Your task to perform on an android device: stop showing notifications on the lock screen Image 0: 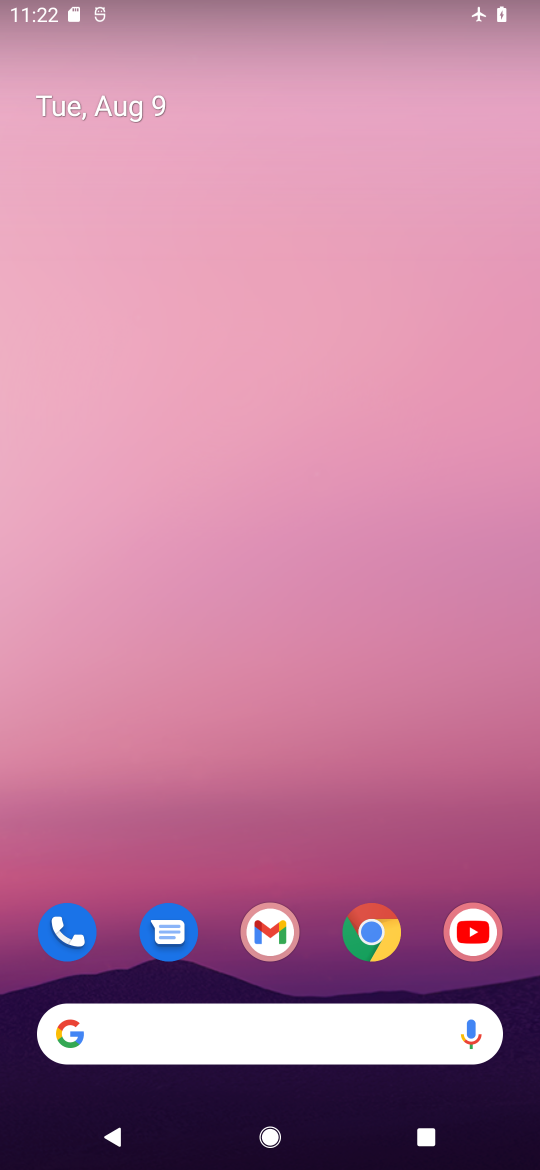
Step 0: drag from (244, 966) to (220, 117)
Your task to perform on an android device: stop showing notifications on the lock screen Image 1: 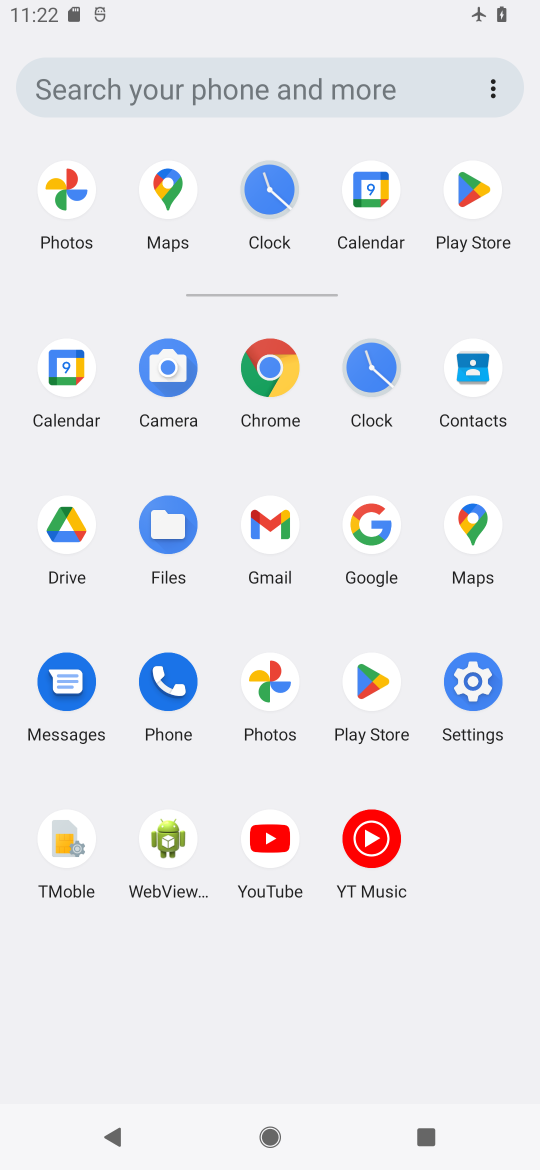
Step 1: click (484, 718)
Your task to perform on an android device: stop showing notifications on the lock screen Image 2: 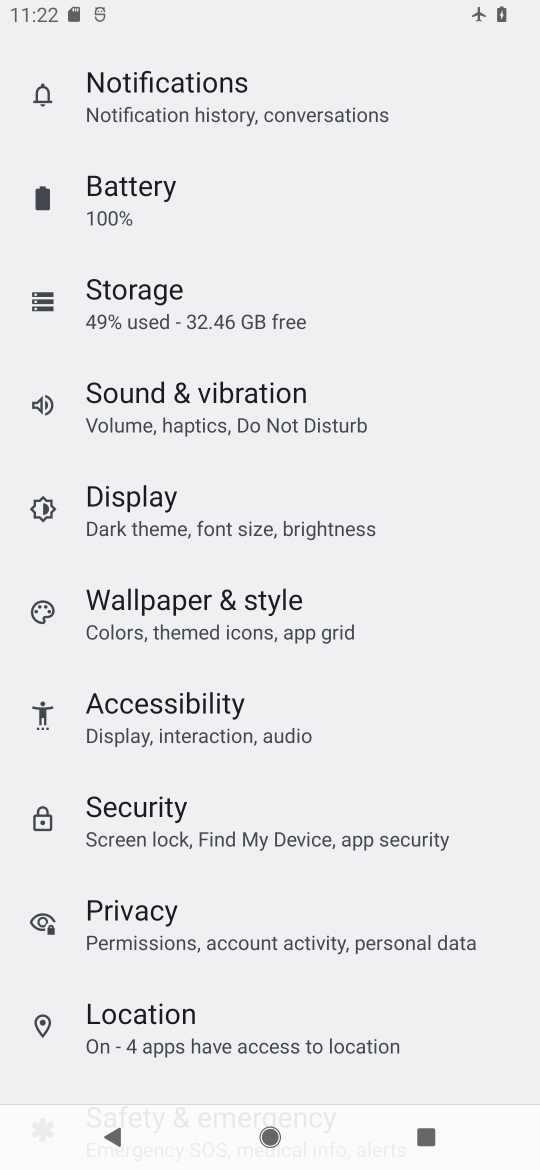
Step 2: click (219, 111)
Your task to perform on an android device: stop showing notifications on the lock screen Image 3: 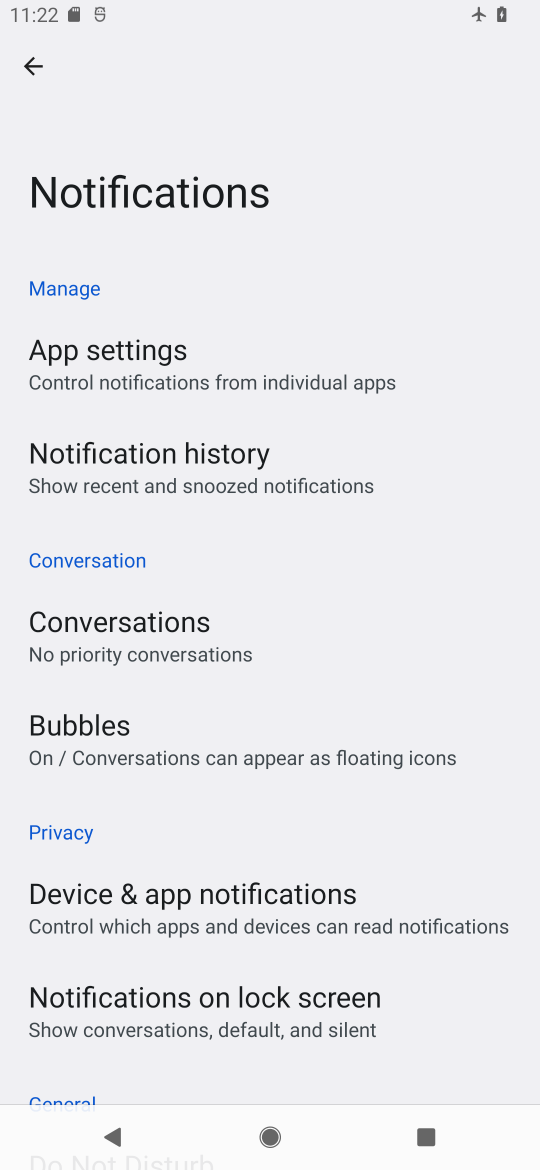
Step 3: click (174, 1020)
Your task to perform on an android device: stop showing notifications on the lock screen Image 4: 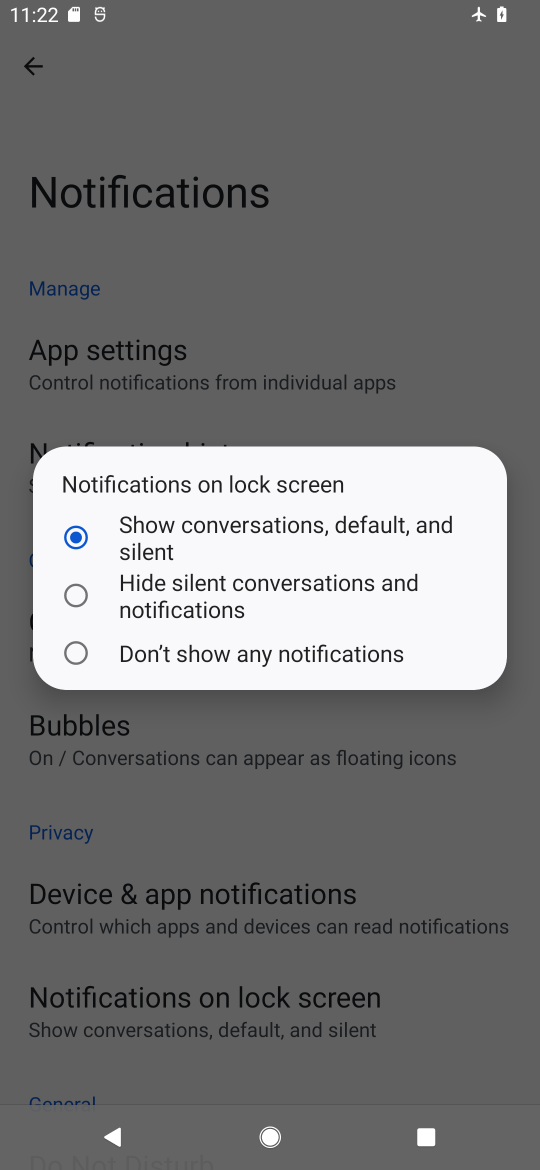
Step 4: click (93, 650)
Your task to perform on an android device: stop showing notifications on the lock screen Image 5: 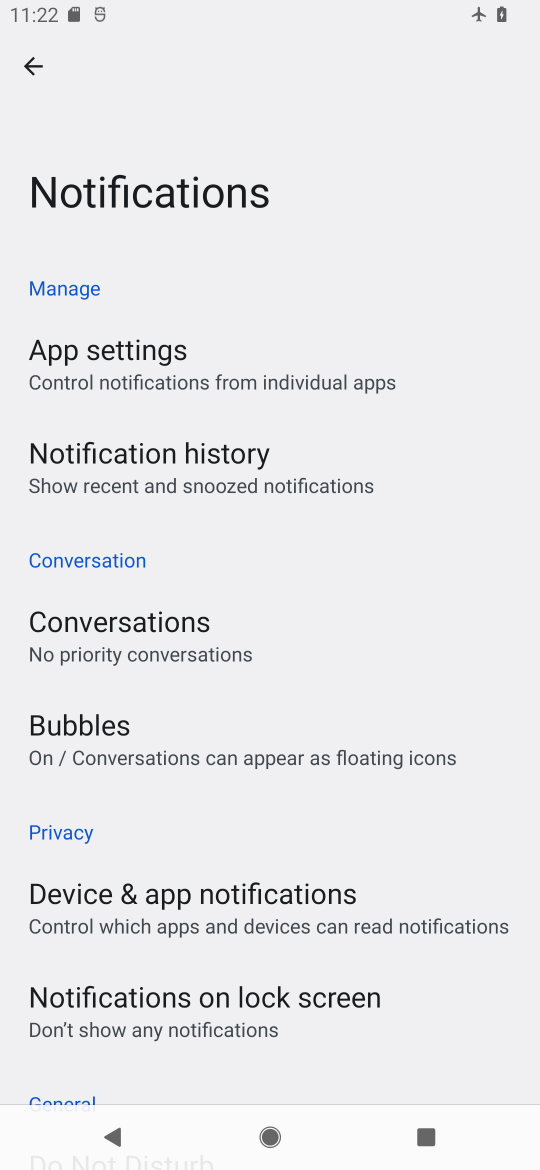
Step 5: task complete